Your task to perform on an android device: turn on data saver in the chrome app Image 0: 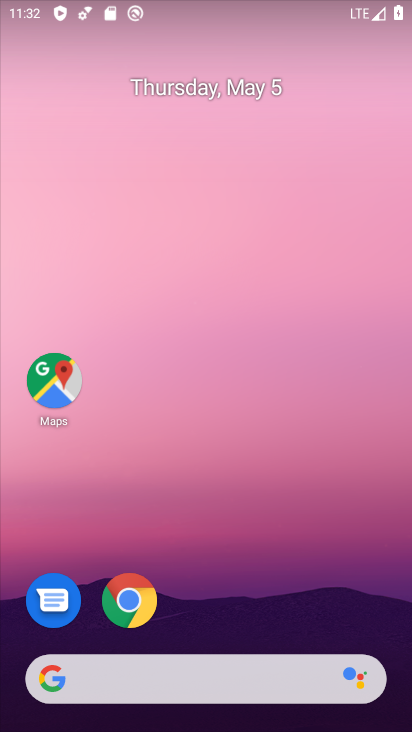
Step 0: drag from (374, 610) to (322, 81)
Your task to perform on an android device: turn on data saver in the chrome app Image 1: 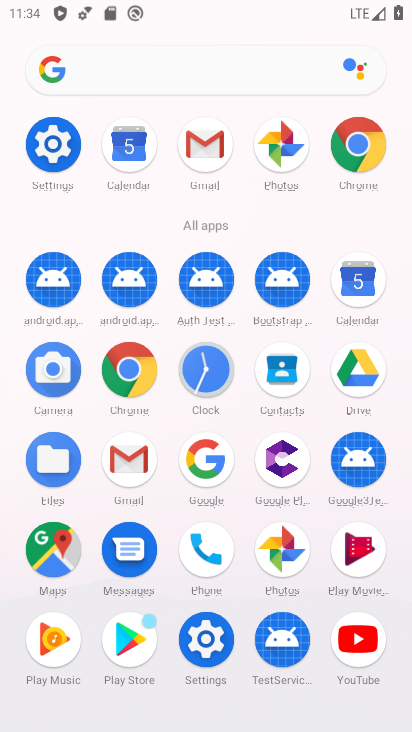
Step 1: click (141, 366)
Your task to perform on an android device: turn on data saver in the chrome app Image 2: 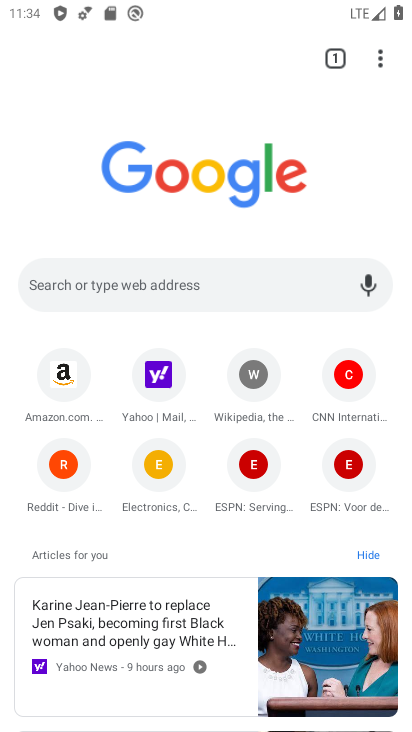
Step 2: click (379, 61)
Your task to perform on an android device: turn on data saver in the chrome app Image 3: 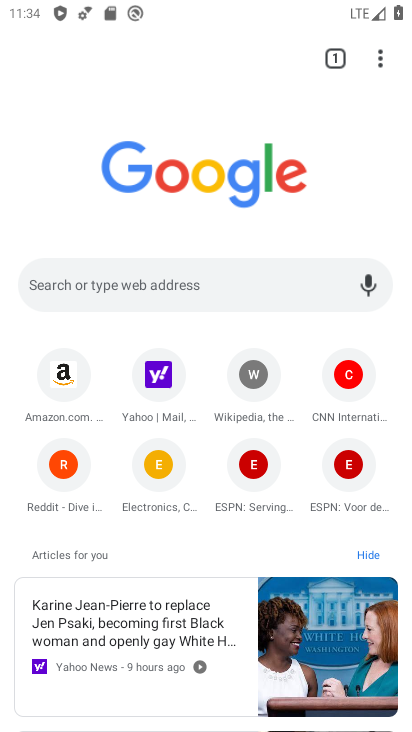
Step 3: click (379, 49)
Your task to perform on an android device: turn on data saver in the chrome app Image 4: 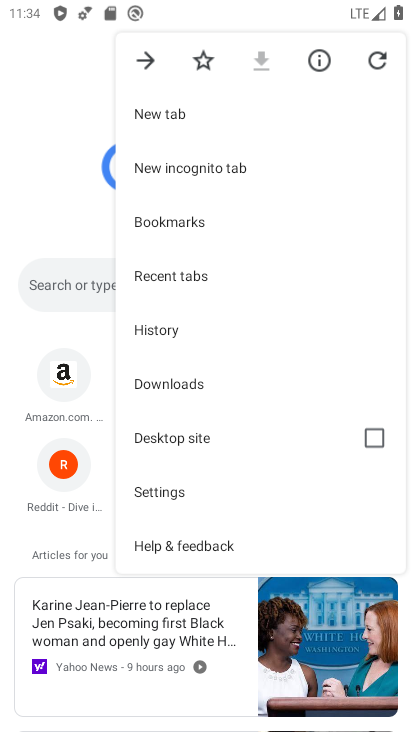
Step 4: click (240, 491)
Your task to perform on an android device: turn on data saver in the chrome app Image 5: 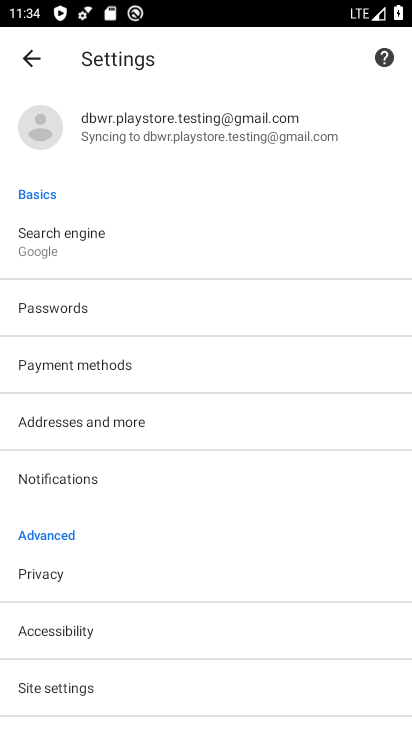
Step 5: drag from (184, 688) to (229, 335)
Your task to perform on an android device: turn on data saver in the chrome app Image 6: 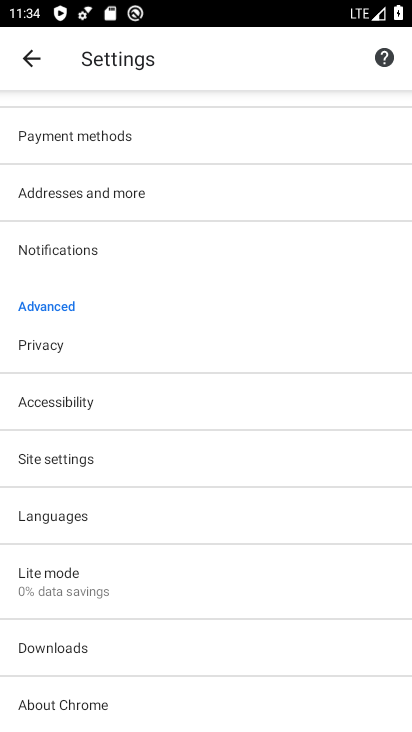
Step 6: click (138, 591)
Your task to perform on an android device: turn on data saver in the chrome app Image 7: 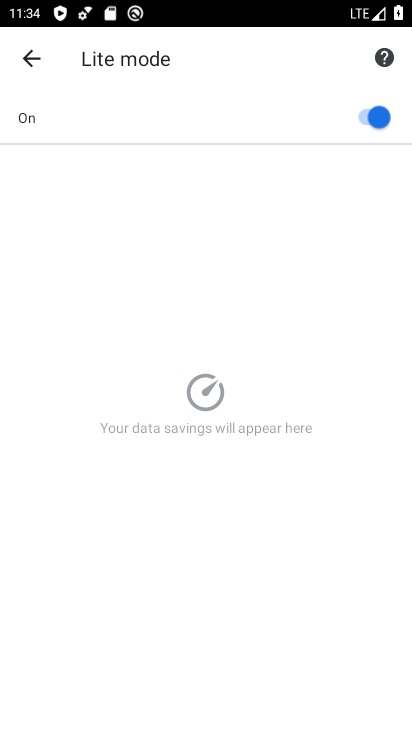
Step 7: task complete